Your task to perform on an android device: Empty the shopping cart on amazon. Image 0: 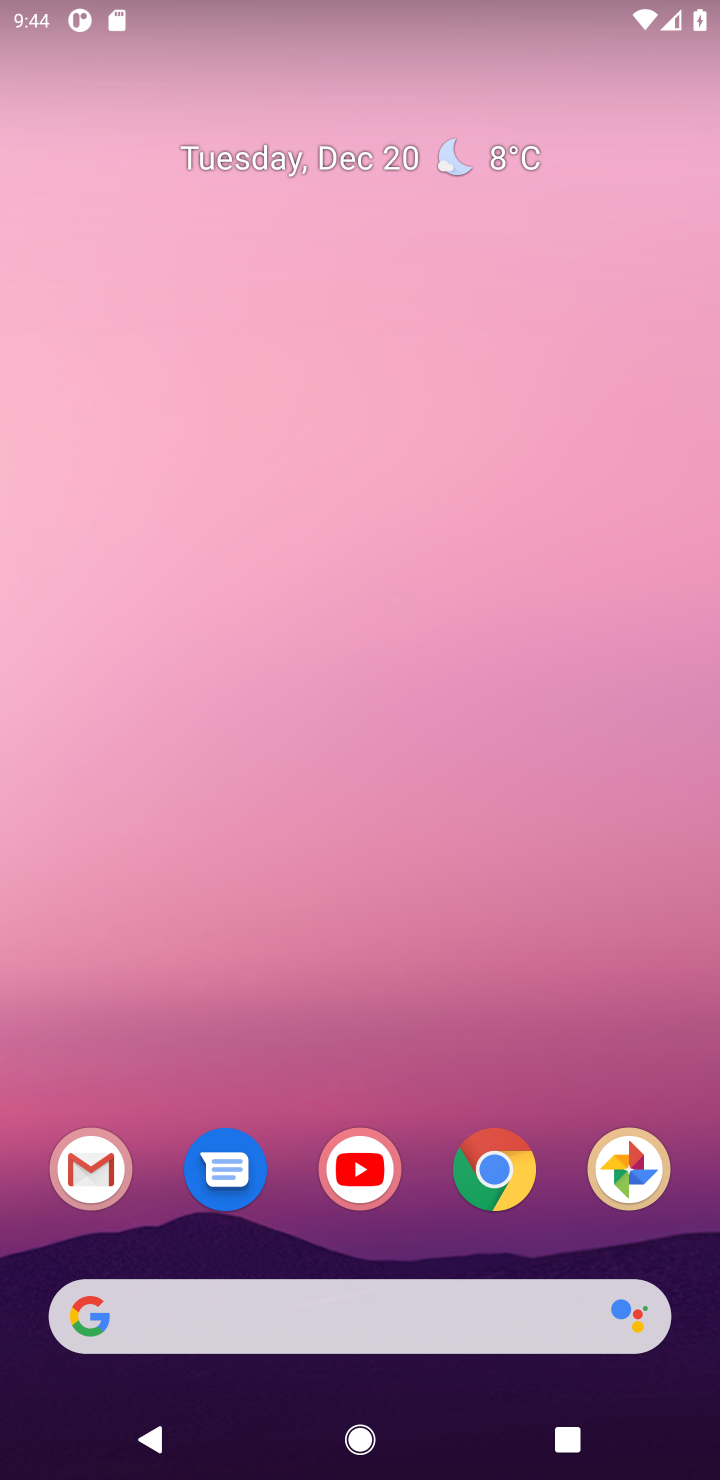
Step 0: click (498, 1178)
Your task to perform on an android device: Empty the shopping cart on amazon. Image 1: 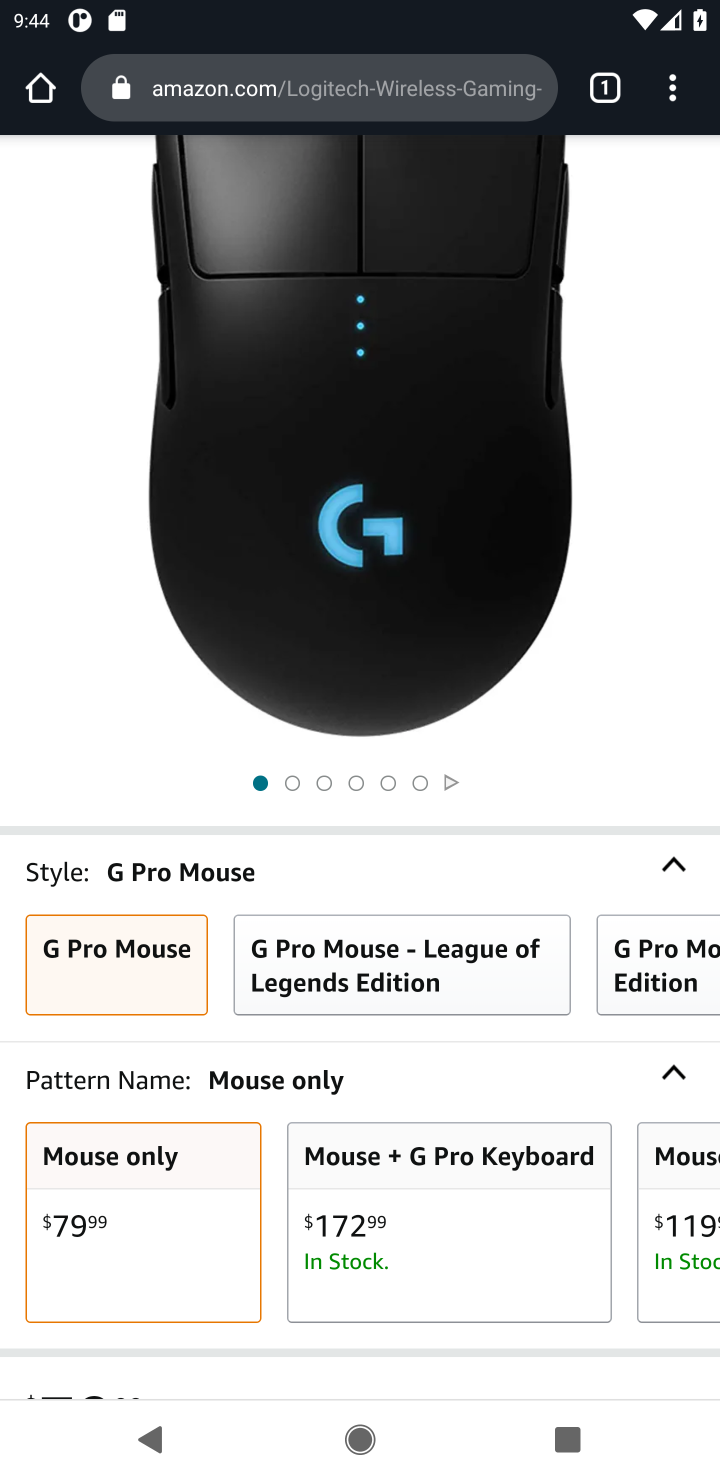
Step 1: drag from (492, 370) to (448, 1403)
Your task to perform on an android device: Empty the shopping cart on amazon. Image 2: 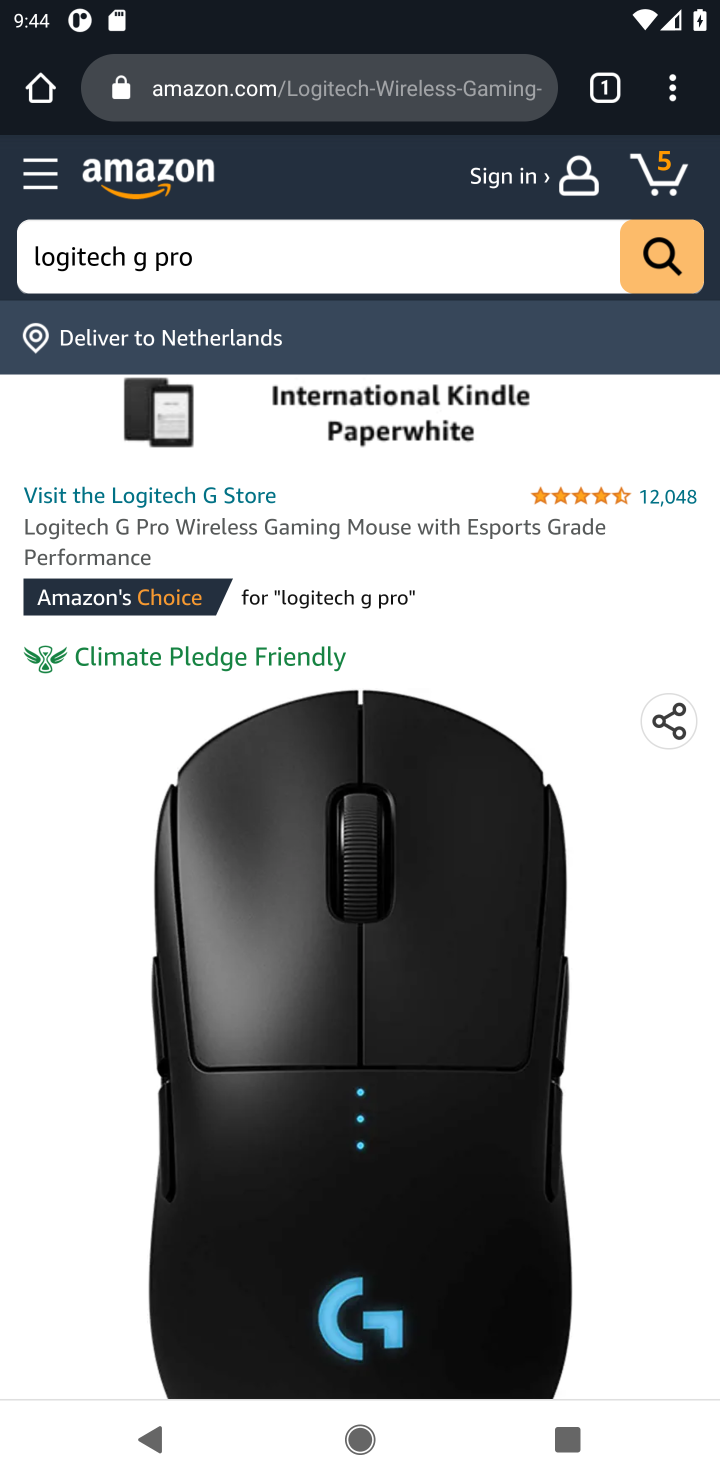
Step 2: click (654, 163)
Your task to perform on an android device: Empty the shopping cart on amazon. Image 3: 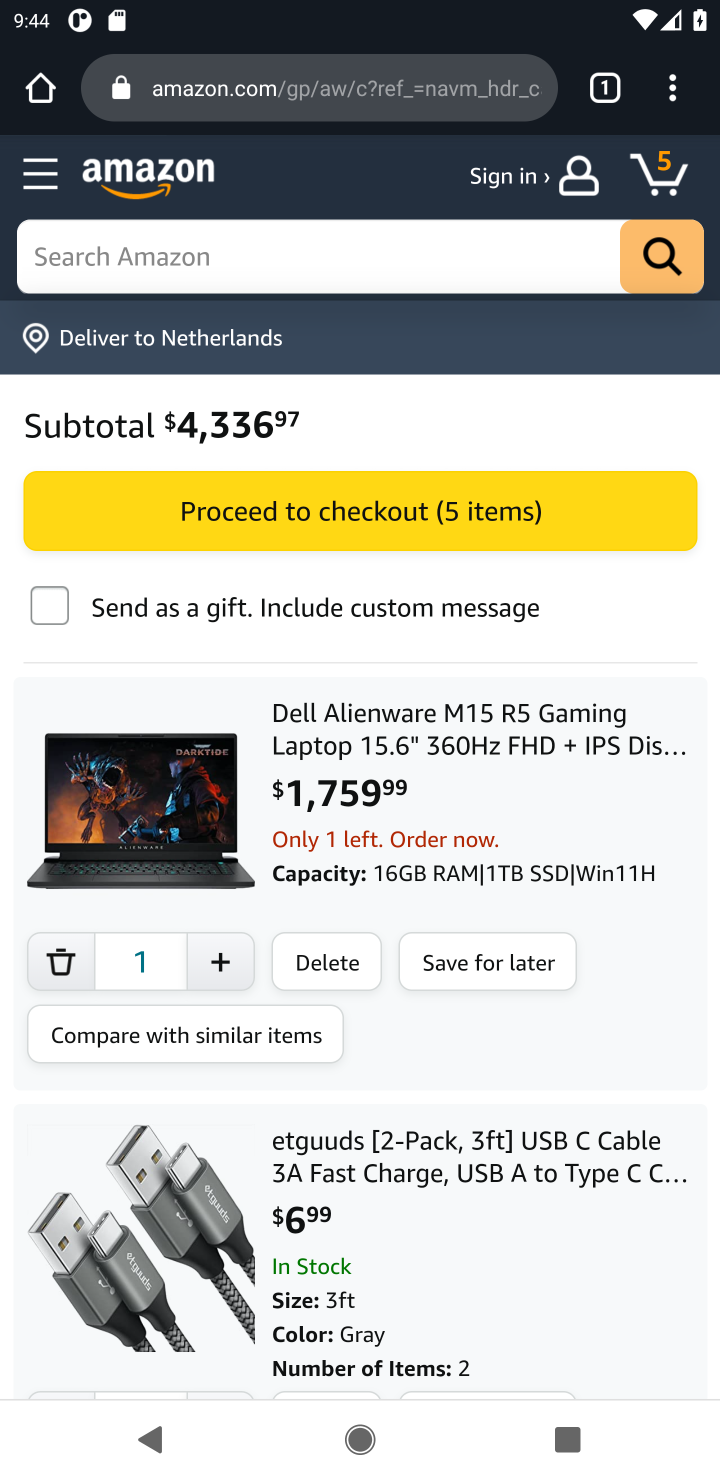
Step 3: click (345, 976)
Your task to perform on an android device: Empty the shopping cart on amazon. Image 4: 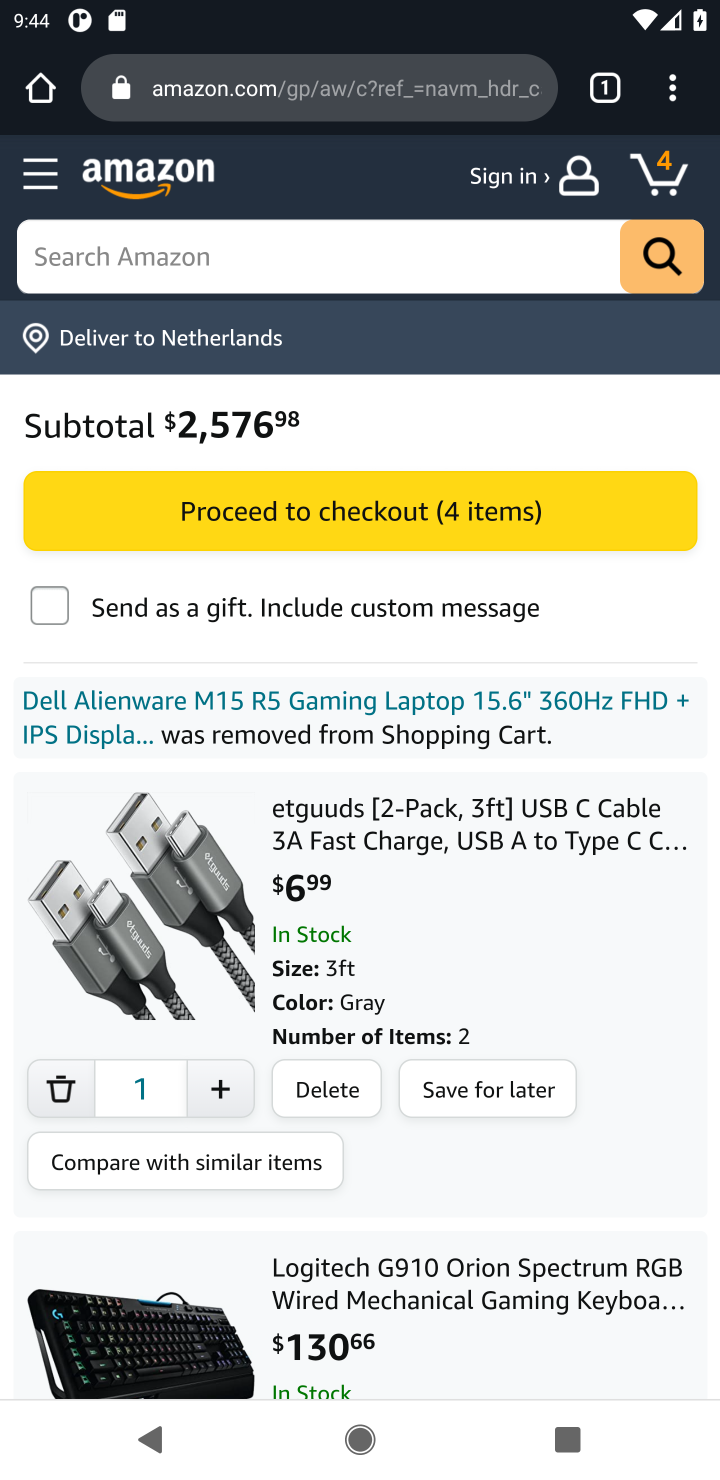
Step 4: click (348, 1088)
Your task to perform on an android device: Empty the shopping cart on amazon. Image 5: 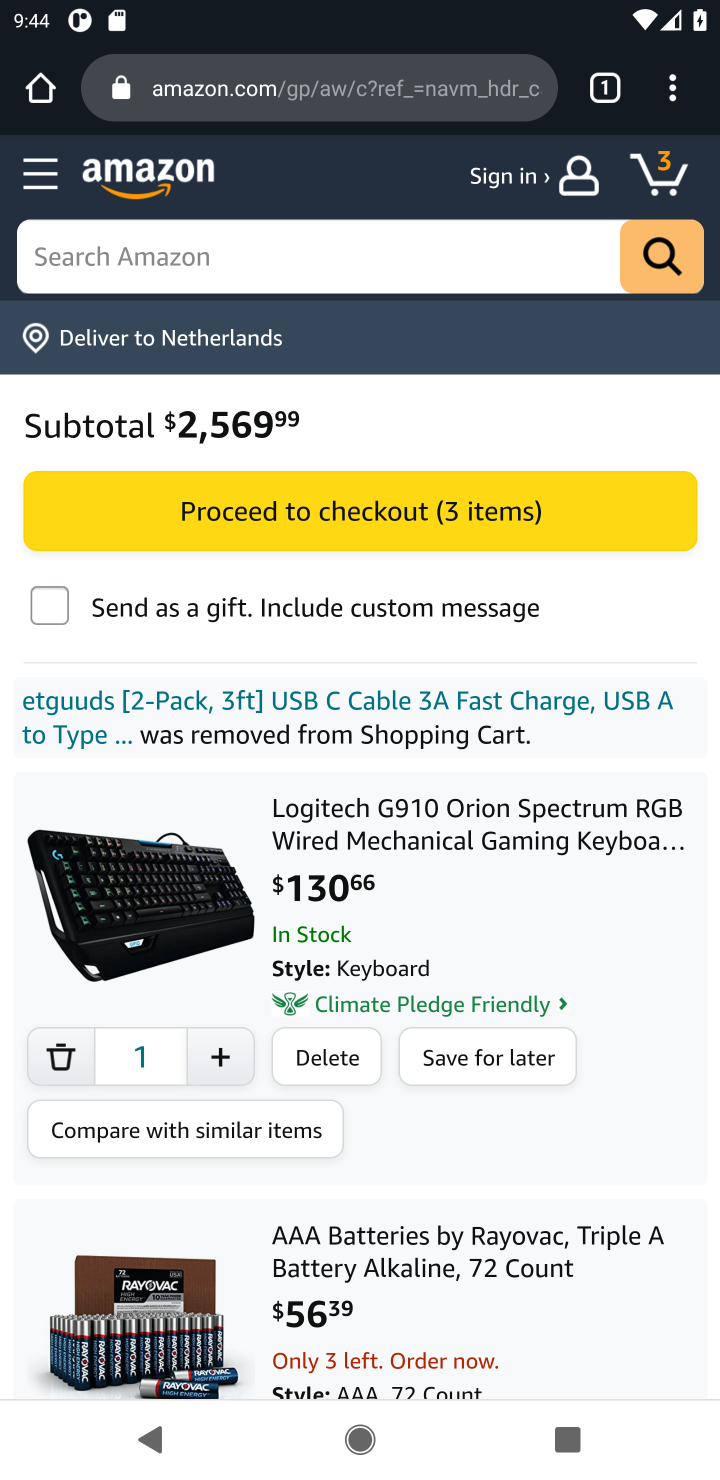
Step 5: click (330, 1052)
Your task to perform on an android device: Empty the shopping cart on amazon. Image 6: 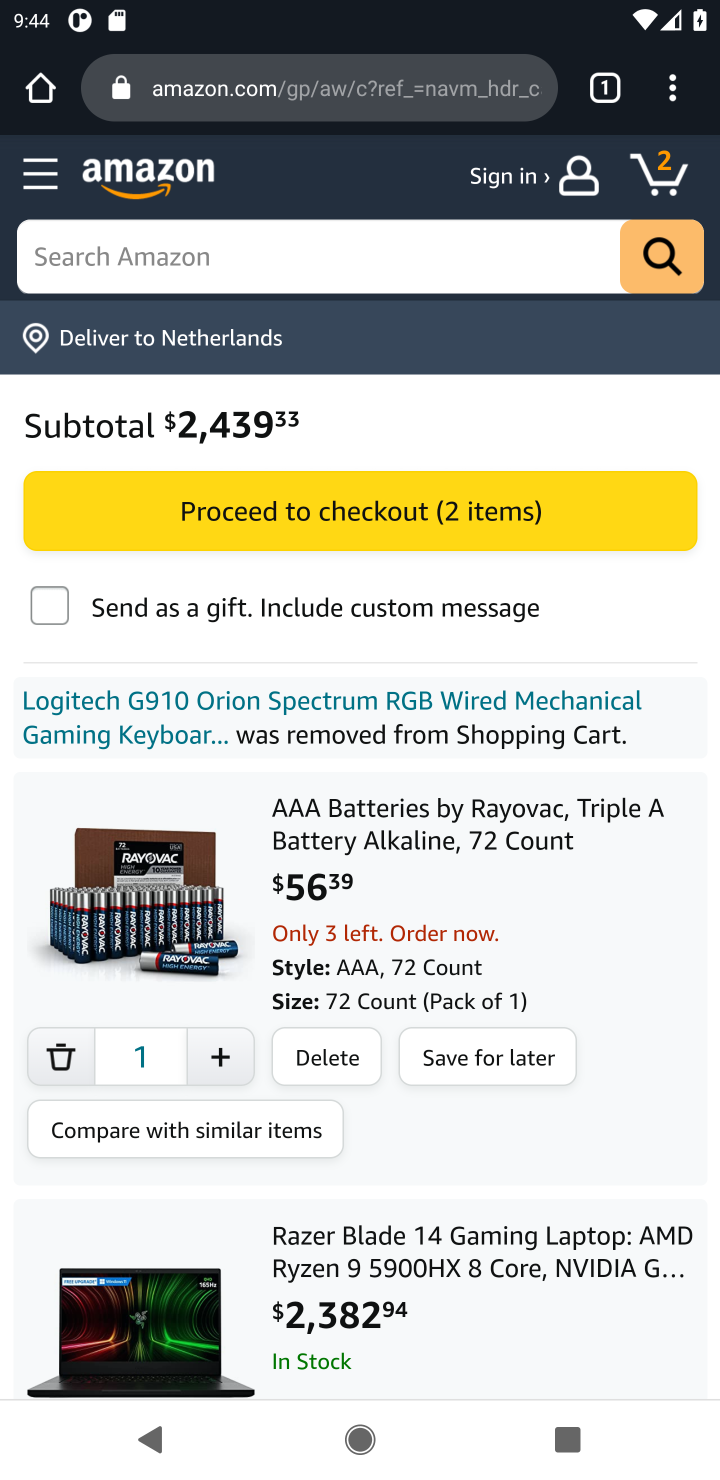
Step 6: click (350, 1052)
Your task to perform on an android device: Empty the shopping cart on amazon. Image 7: 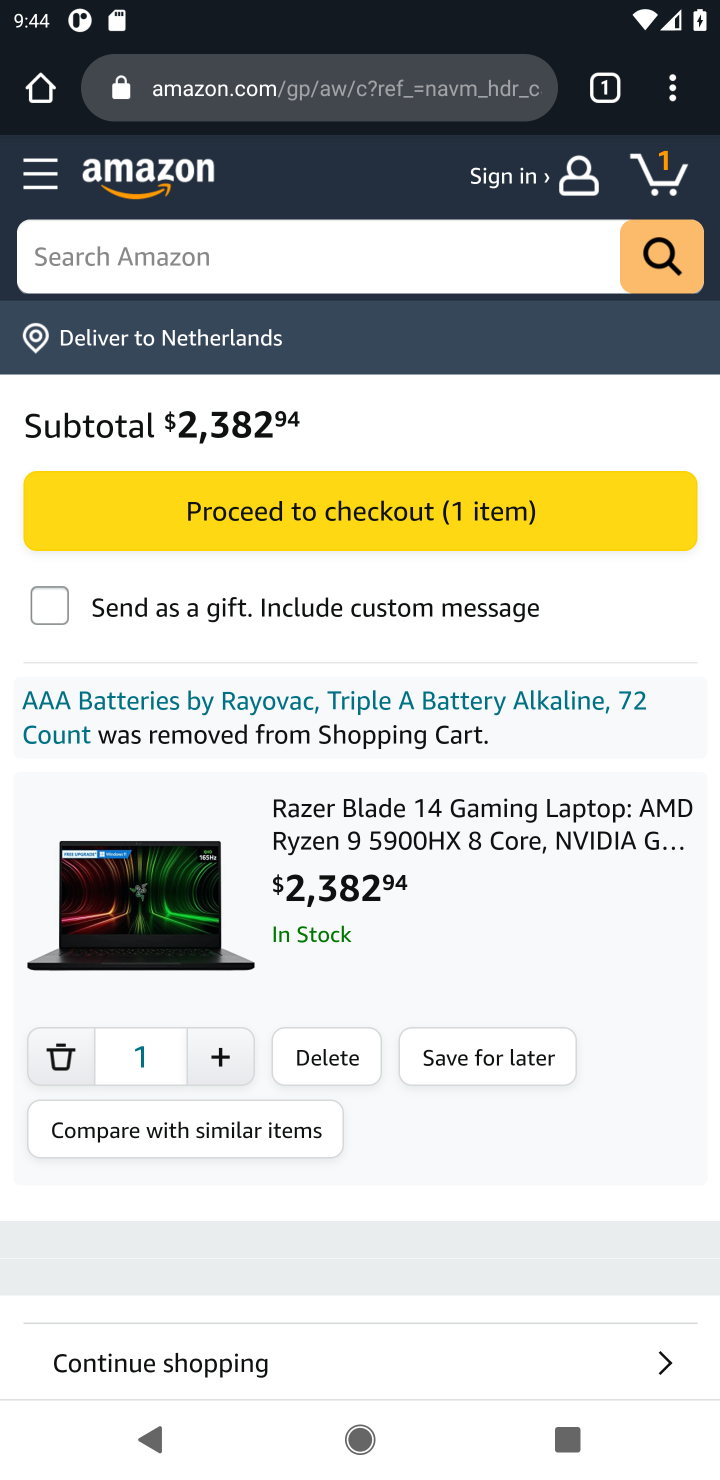
Step 7: click (349, 1052)
Your task to perform on an android device: Empty the shopping cart on amazon. Image 8: 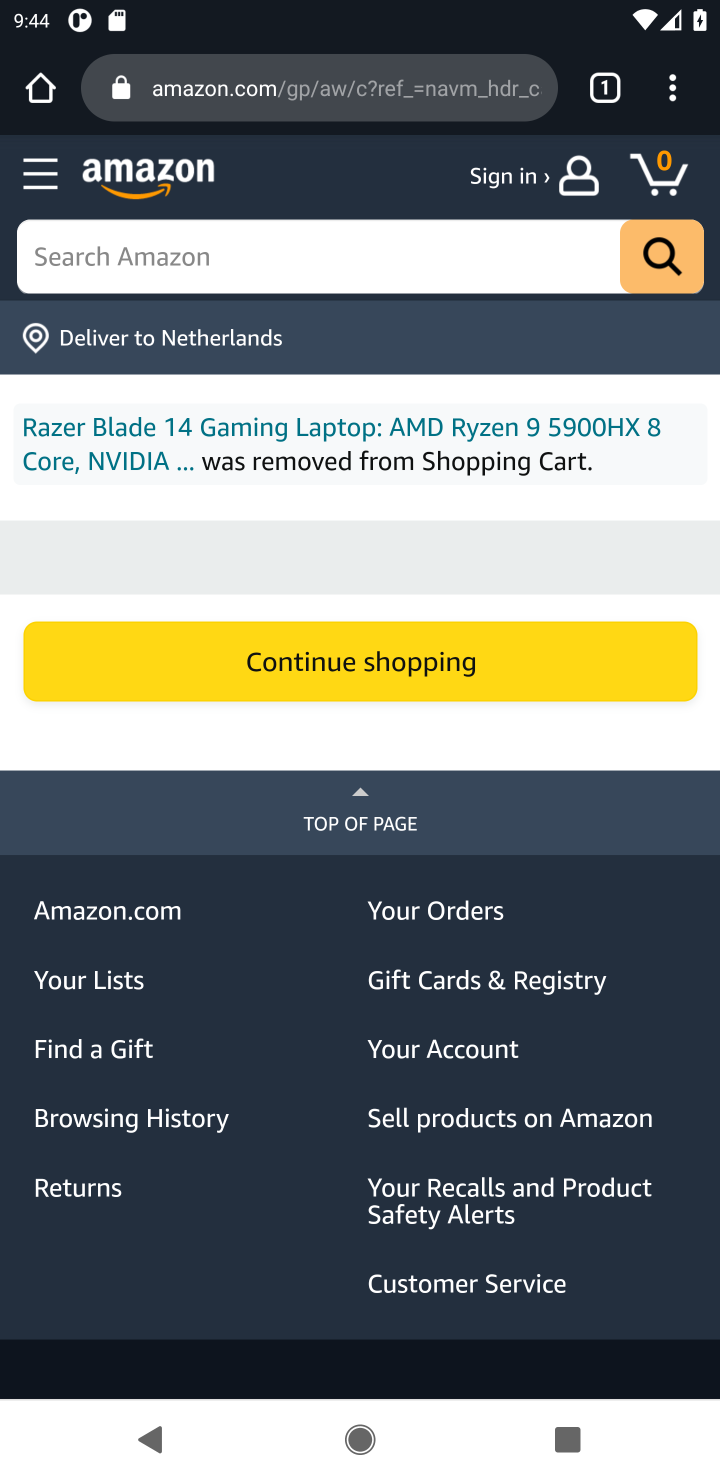
Step 8: task complete